Your task to perform on an android device: Toggle the flashlight Image 0: 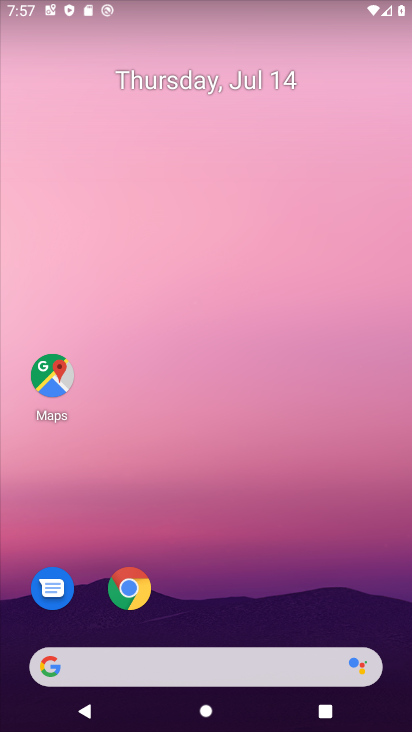
Step 0: drag from (328, 609) to (216, 243)
Your task to perform on an android device: Toggle the flashlight Image 1: 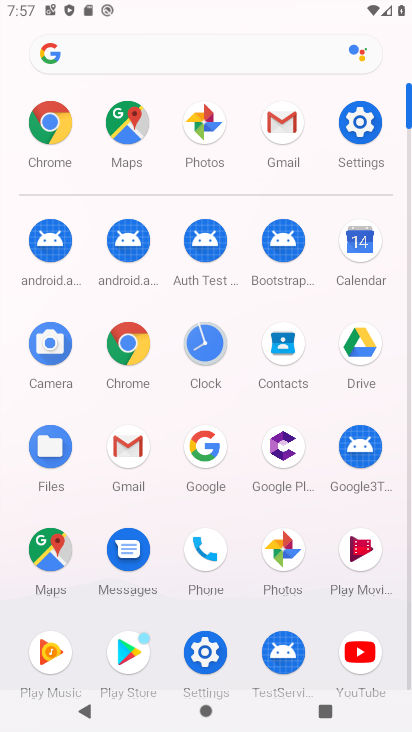
Step 1: click (364, 117)
Your task to perform on an android device: Toggle the flashlight Image 2: 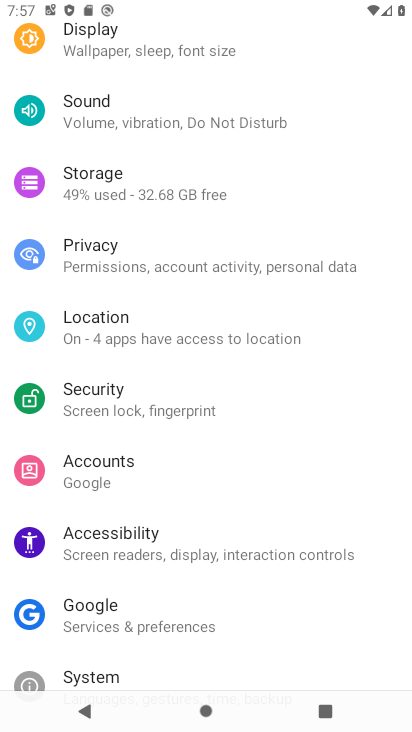
Step 2: click (205, 56)
Your task to perform on an android device: Toggle the flashlight Image 3: 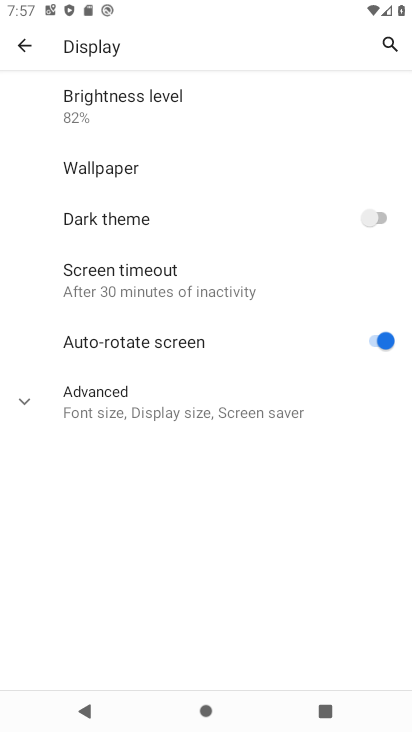
Step 3: click (112, 409)
Your task to perform on an android device: Toggle the flashlight Image 4: 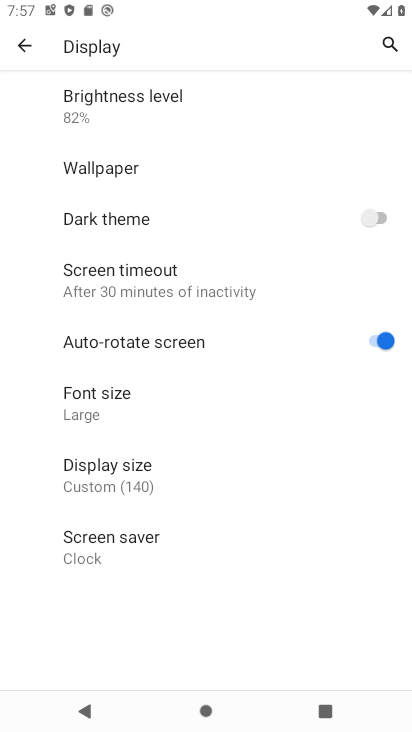
Step 4: task complete